Your task to perform on an android device: Do I have any events this weekend? Image 0: 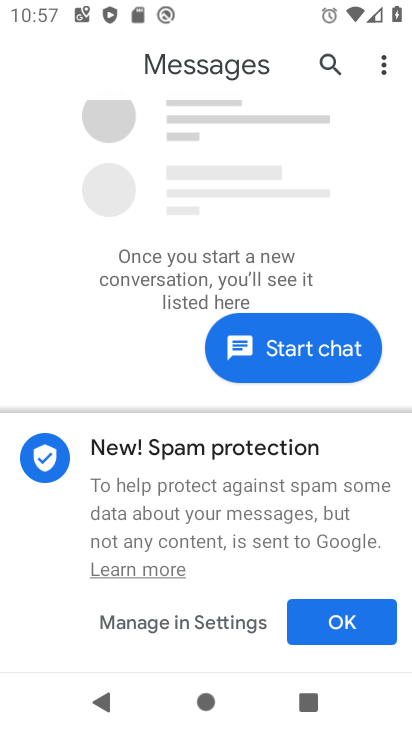
Step 0: press home button
Your task to perform on an android device: Do I have any events this weekend? Image 1: 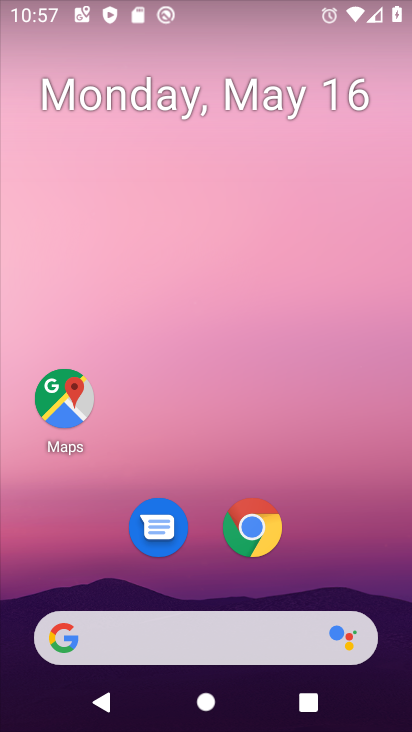
Step 1: drag from (333, 597) to (344, 0)
Your task to perform on an android device: Do I have any events this weekend? Image 2: 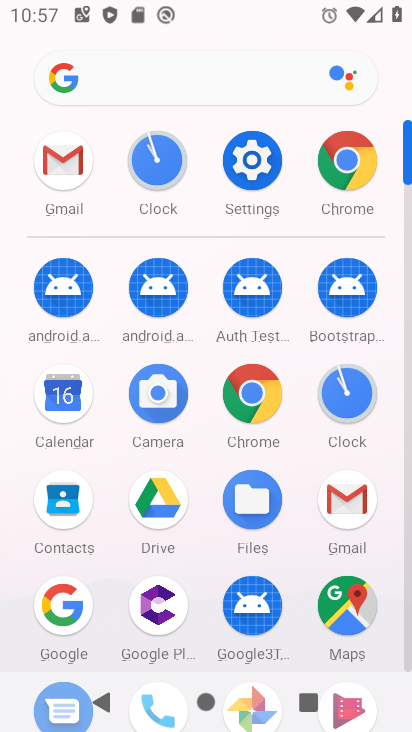
Step 2: click (62, 405)
Your task to perform on an android device: Do I have any events this weekend? Image 3: 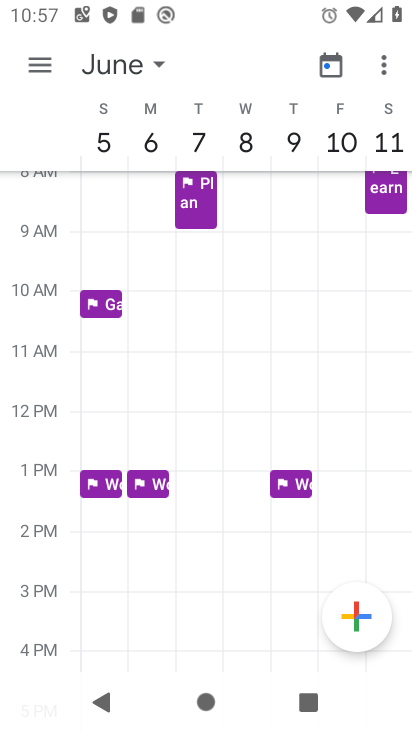
Step 3: click (337, 71)
Your task to perform on an android device: Do I have any events this weekend? Image 4: 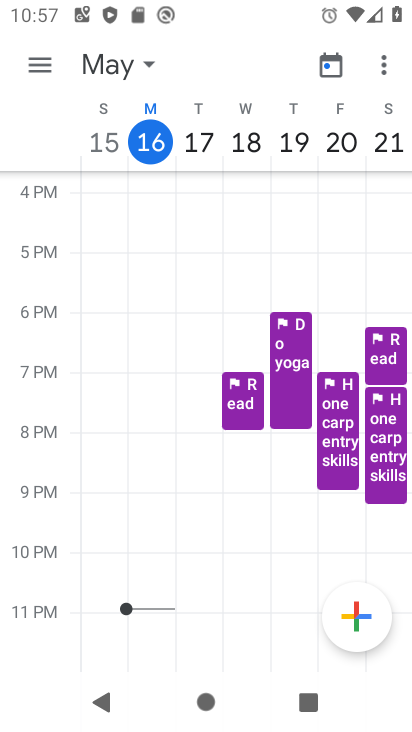
Step 4: task complete